Your task to perform on an android device: Open the stopwatch Image 0: 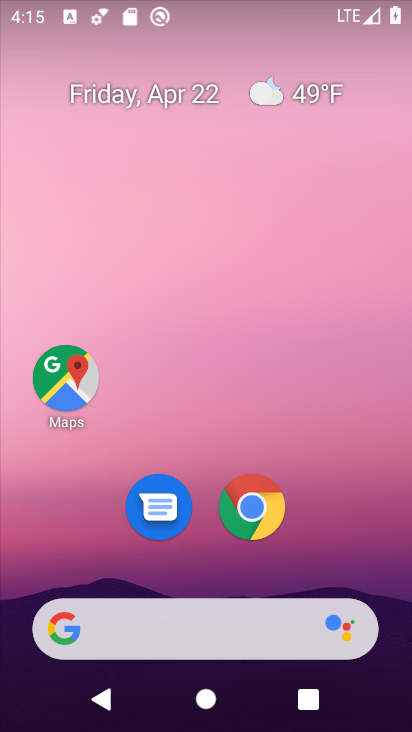
Step 0: drag from (375, 560) to (296, 104)
Your task to perform on an android device: Open the stopwatch Image 1: 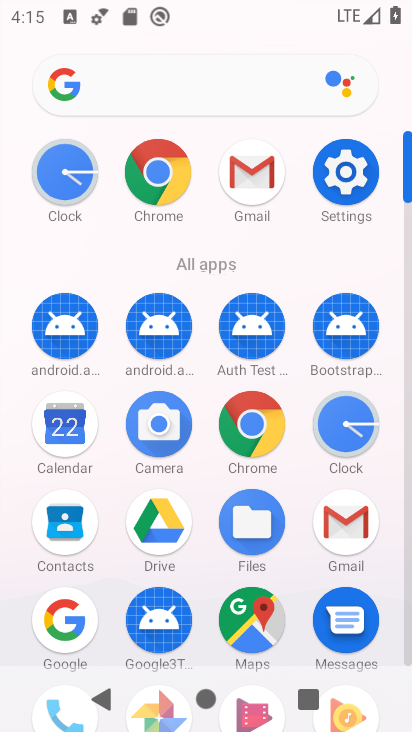
Step 1: click (406, 645)
Your task to perform on an android device: Open the stopwatch Image 2: 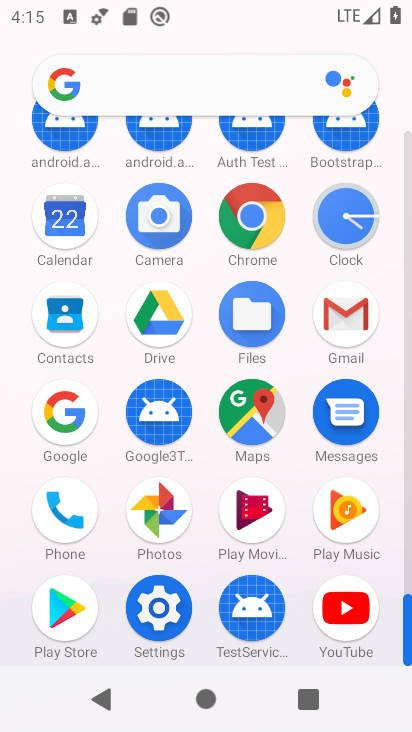
Step 2: click (340, 216)
Your task to perform on an android device: Open the stopwatch Image 3: 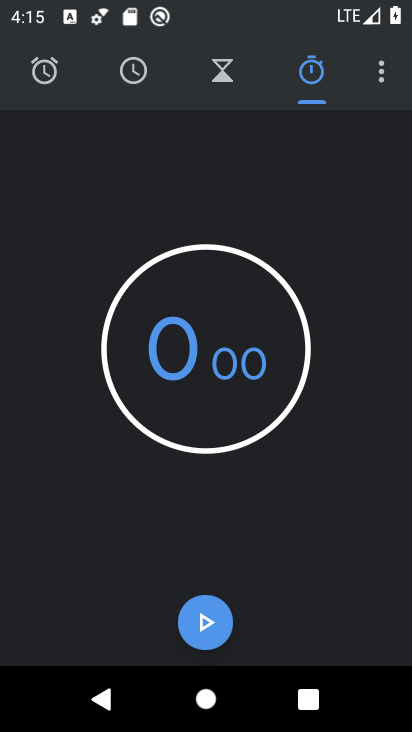
Step 3: task complete